Your task to perform on an android device: turn notification dots off Image 0: 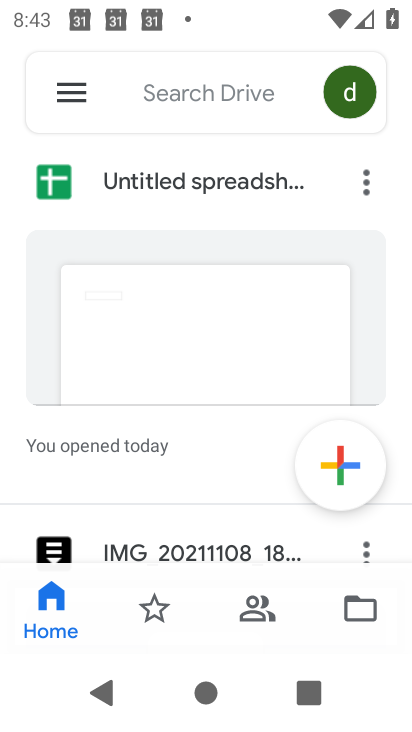
Step 0: press home button
Your task to perform on an android device: turn notification dots off Image 1: 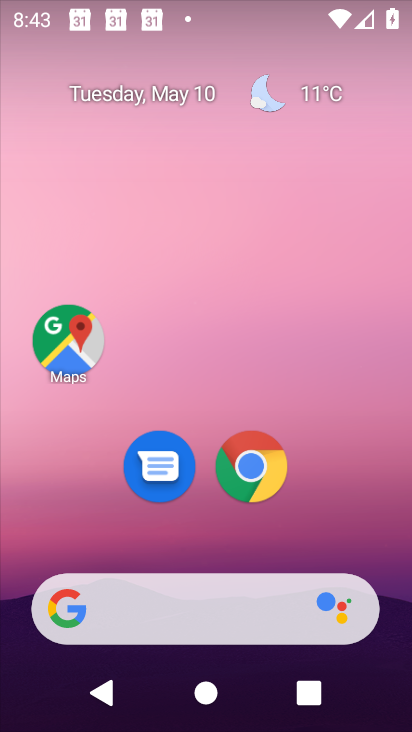
Step 1: drag from (189, 529) to (318, 8)
Your task to perform on an android device: turn notification dots off Image 2: 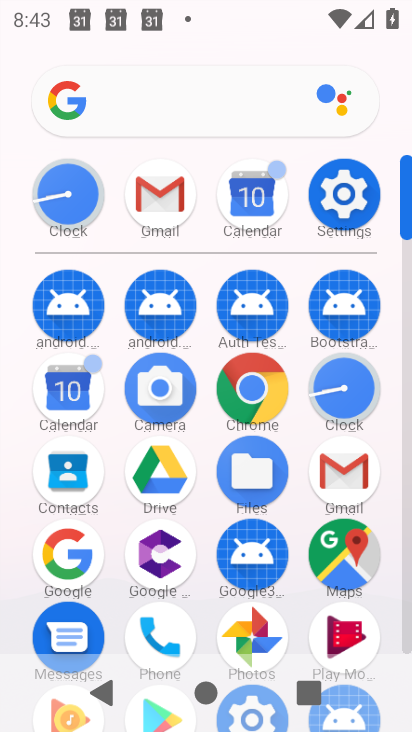
Step 2: click (336, 207)
Your task to perform on an android device: turn notification dots off Image 3: 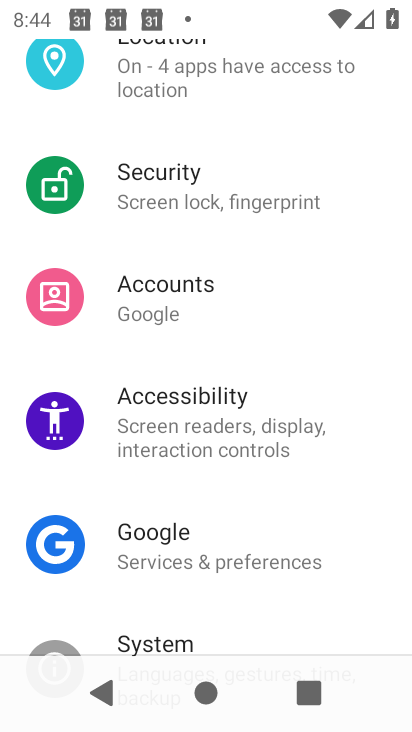
Step 3: drag from (241, 294) to (219, 625)
Your task to perform on an android device: turn notification dots off Image 4: 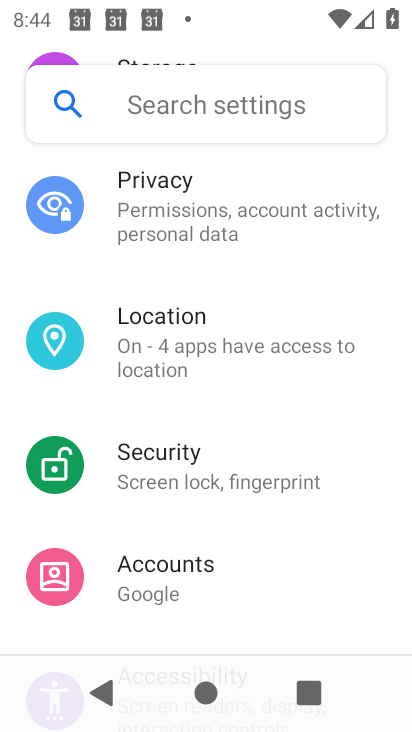
Step 4: drag from (237, 306) to (238, 593)
Your task to perform on an android device: turn notification dots off Image 5: 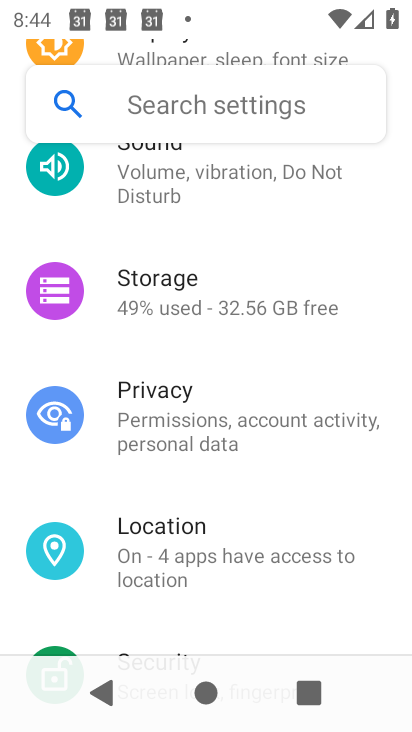
Step 5: drag from (242, 294) to (247, 599)
Your task to perform on an android device: turn notification dots off Image 6: 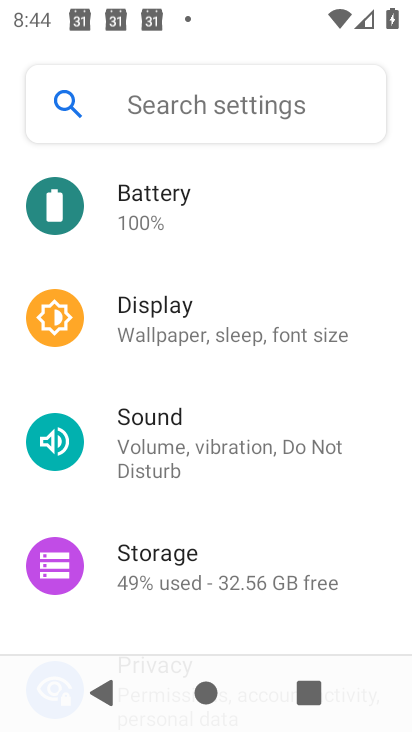
Step 6: drag from (206, 264) to (212, 585)
Your task to perform on an android device: turn notification dots off Image 7: 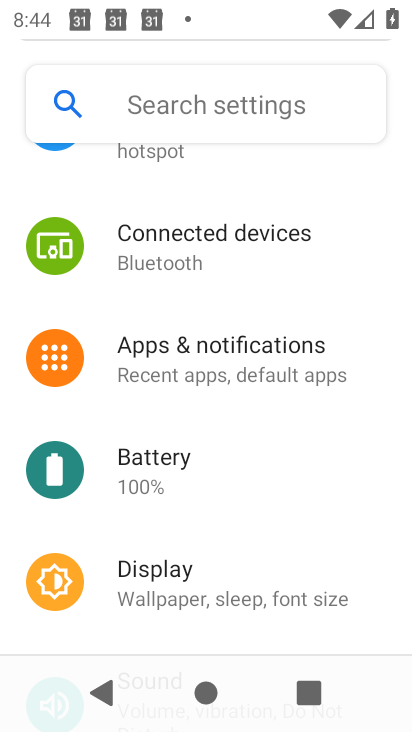
Step 7: drag from (207, 296) to (207, 462)
Your task to perform on an android device: turn notification dots off Image 8: 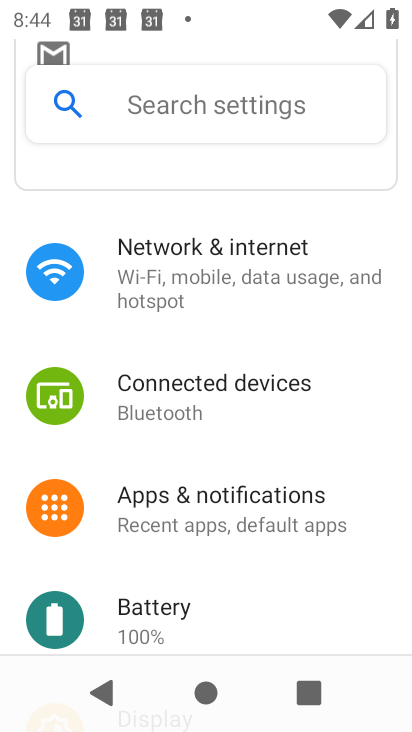
Step 8: click (217, 427)
Your task to perform on an android device: turn notification dots off Image 9: 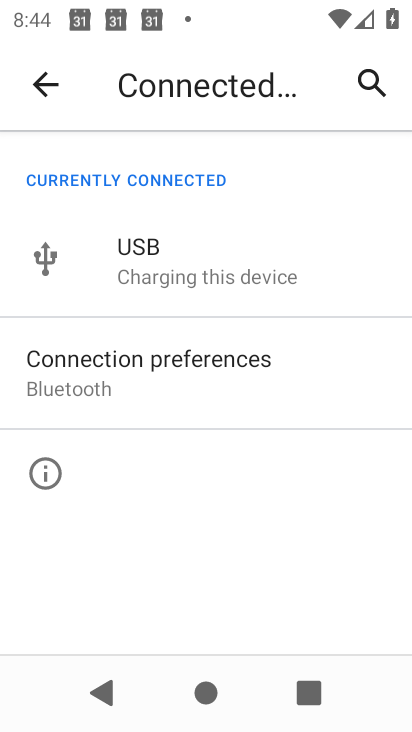
Step 9: click (42, 69)
Your task to perform on an android device: turn notification dots off Image 10: 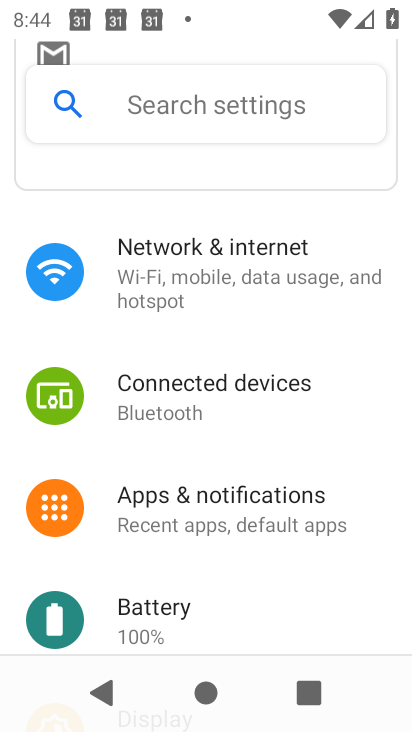
Step 10: click (241, 530)
Your task to perform on an android device: turn notification dots off Image 11: 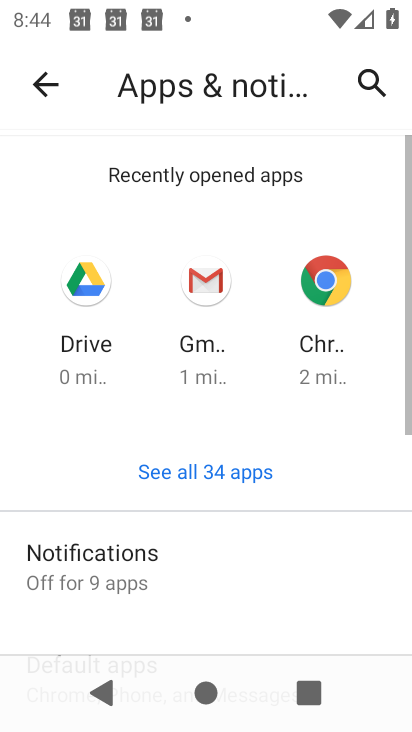
Step 11: drag from (204, 567) to (254, 265)
Your task to perform on an android device: turn notification dots off Image 12: 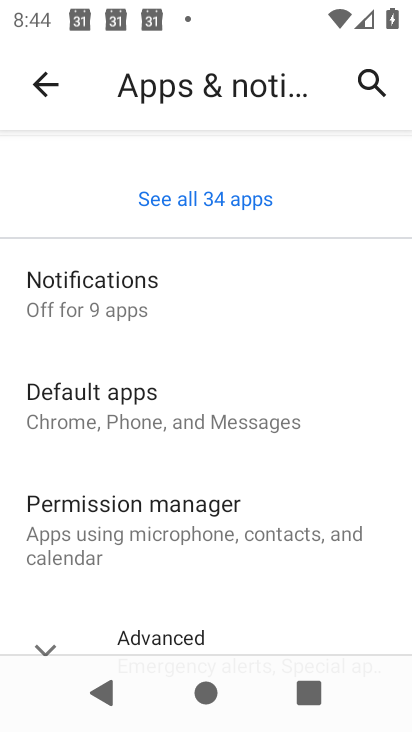
Step 12: click (111, 309)
Your task to perform on an android device: turn notification dots off Image 13: 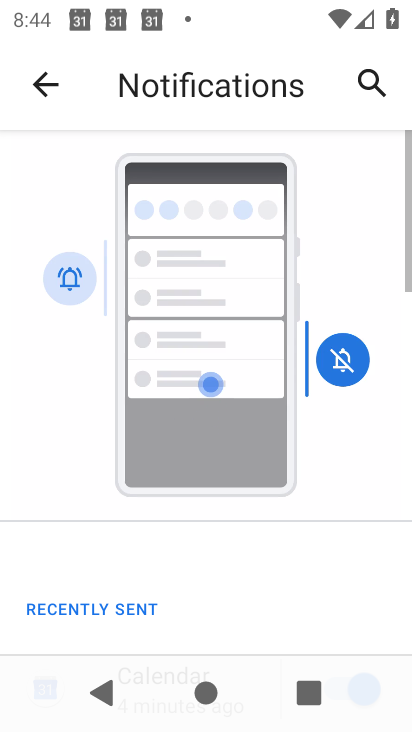
Step 13: drag from (180, 598) to (257, 190)
Your task to perform on an android device: turn notification dots off Image 14: 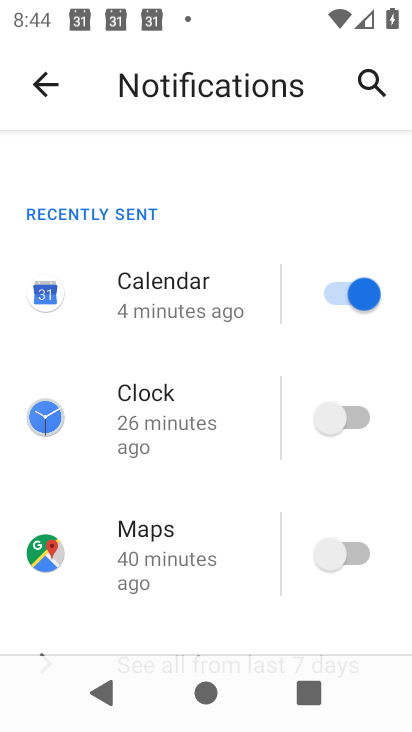
Step 14: drag from (172, 528) to (247, 131)
Your task to perform on an android device: turn notification dots off Image 15: 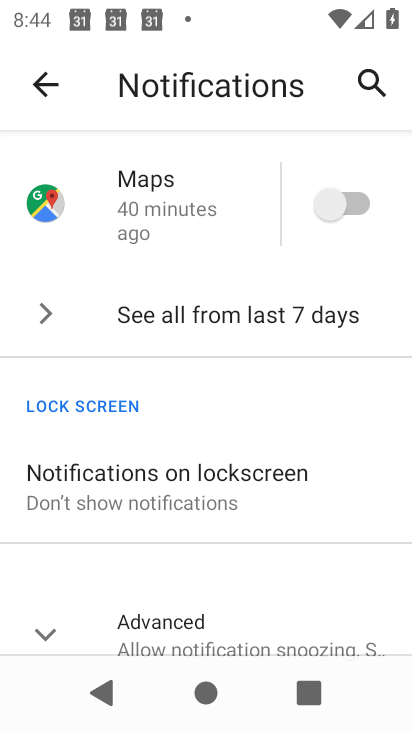
Step 15: drag from (185, 572) to (224, 314)
Your task to perform on an android device: turn notification dots off Image 16: 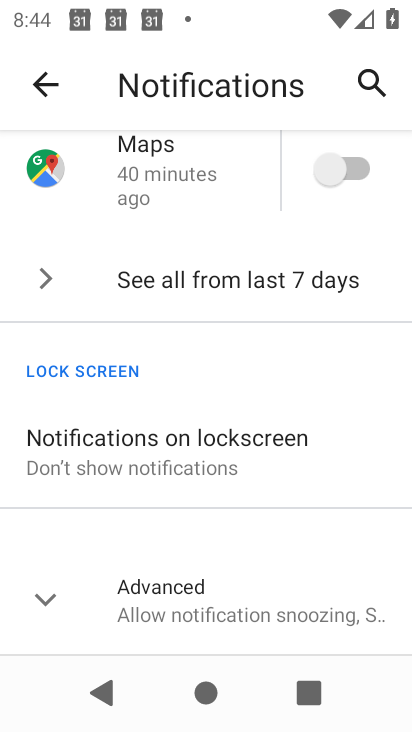
Step 16: click (154, 600)
Your task to perform on an android device: turn notification dots off Image 17: 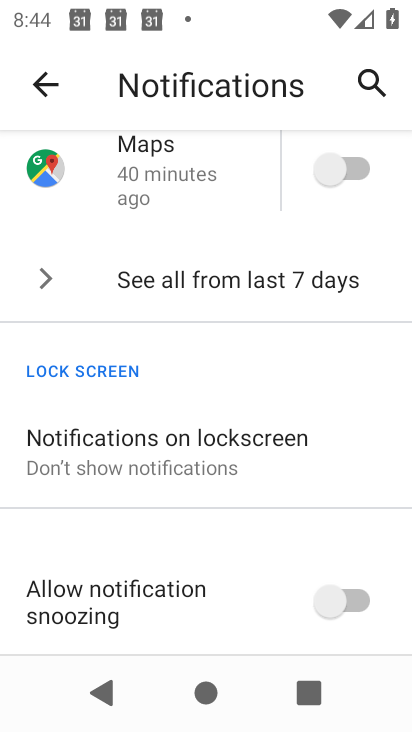
Step 17: drag from (197, 569) to (265, 249)
Your task to perform on an android device: turn notification dots off Image 18: 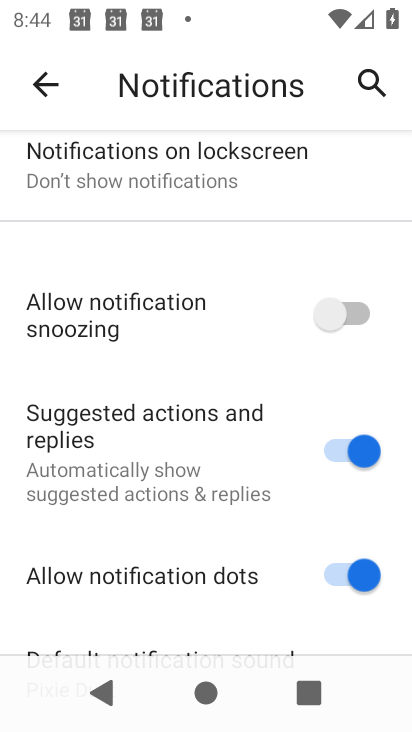
Step 18: click (317, 569)
Your task to perform on an android device: turn notification dots off Image 19: 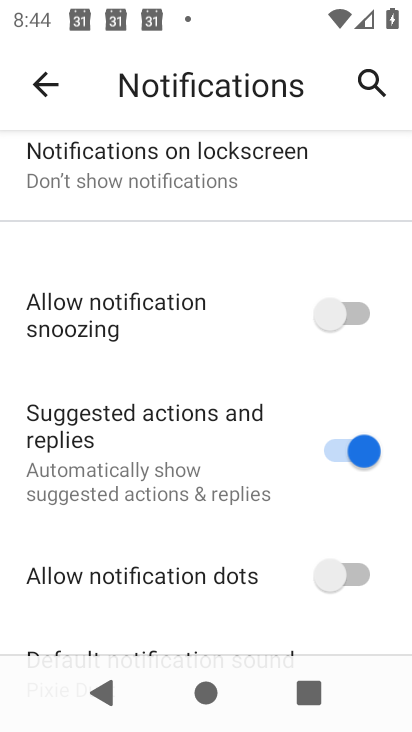
Step 19: task complete